Your task to perform on an android device: turn off priority inbox in the gmail app Image 0: 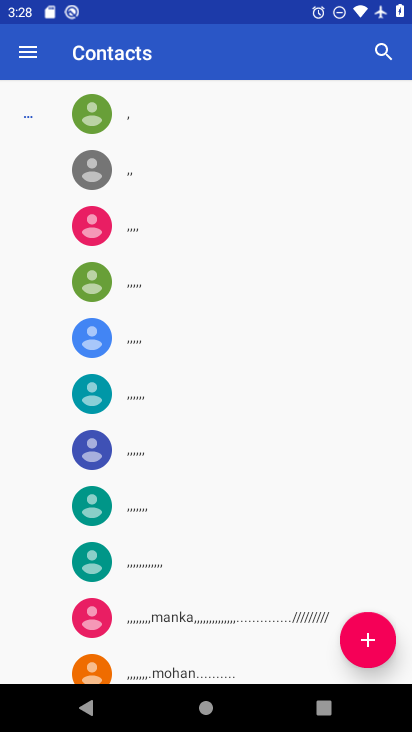
Step 0: press home button
Your task to perform on an android device: turn off priority inbox in the gmail app Image 1: 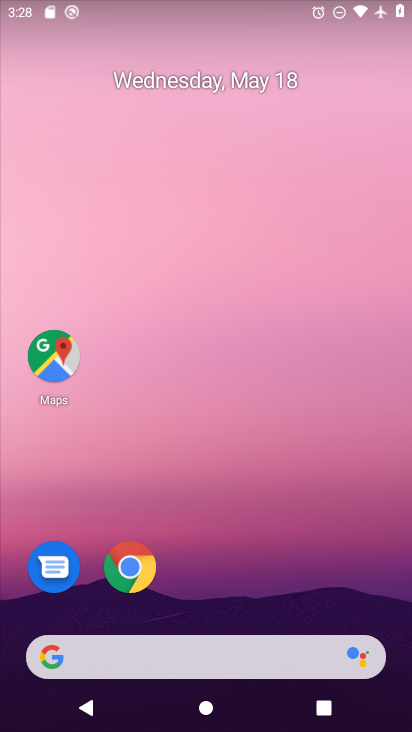
Step 1: drag from (200, 598) to (183, 233)
Your task to perform on an android device: turn off priority inbox in the gmail app Image 2: 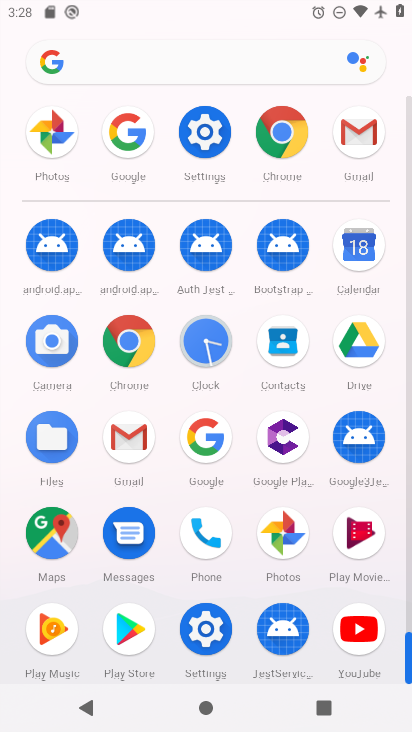
Step 2: click (360, 123)
Your task to perform on an android device: turn off priority inbox in the gmail app Image 3: 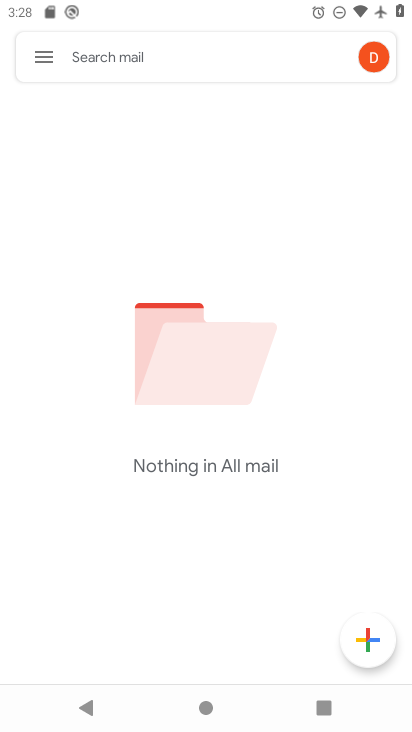
Step 3: click (31, 55)
Your task to perform on an android device: turn off priority inbox in the gmail app Image 4: 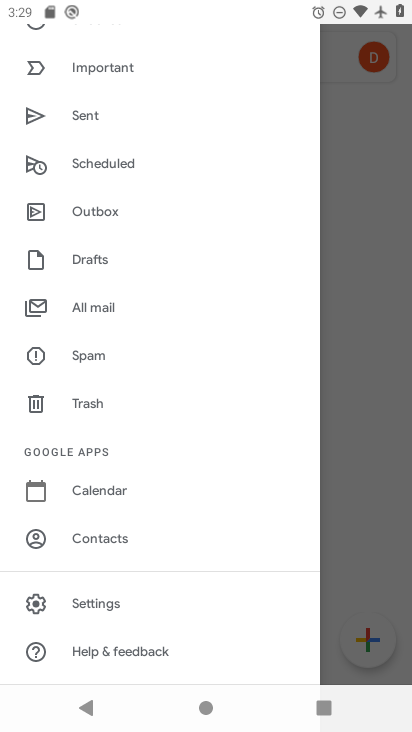
Step 4: click (129, 602)
Your task to perform on an android device: turn off priority inbox in the gmail app Image 5: 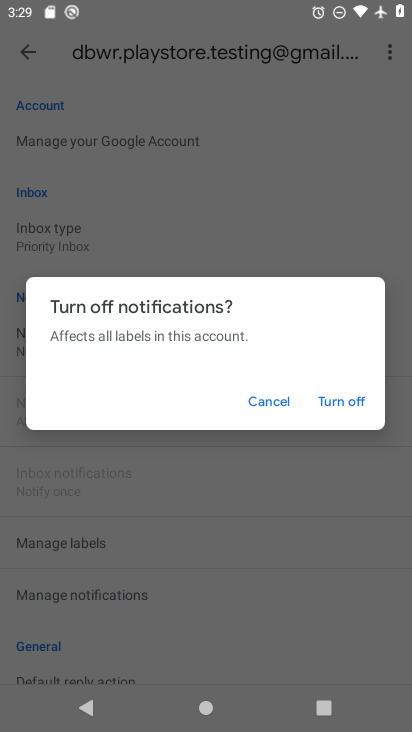
Step 5: click (350, 406)
Your task to perform on an android device: turn off priority inbox in the gmail app Image 6: 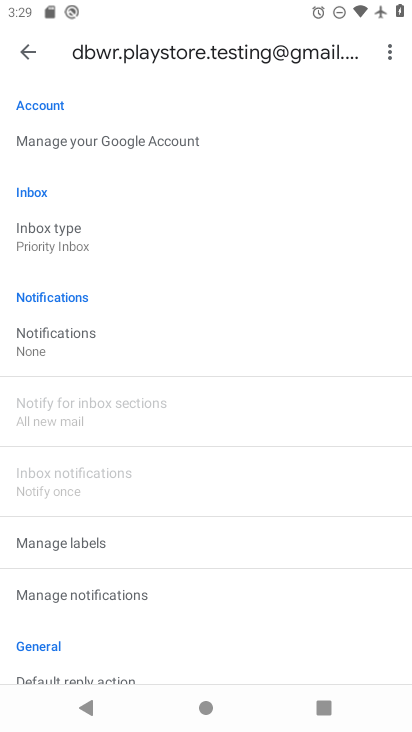
Step 6: click (64, 226)
Your task to perform on an android device: turn off priority inbox in the gmail app Image 7: 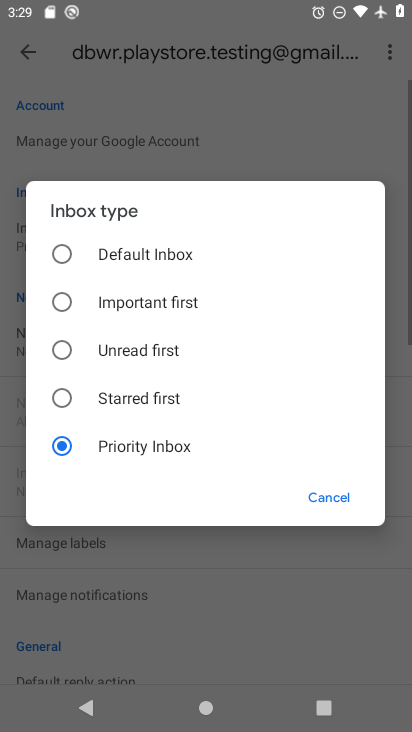
Step 7: click (124, 254)
Your task to perform on an android device: turn off priority inbox in the gmail app Image 8: 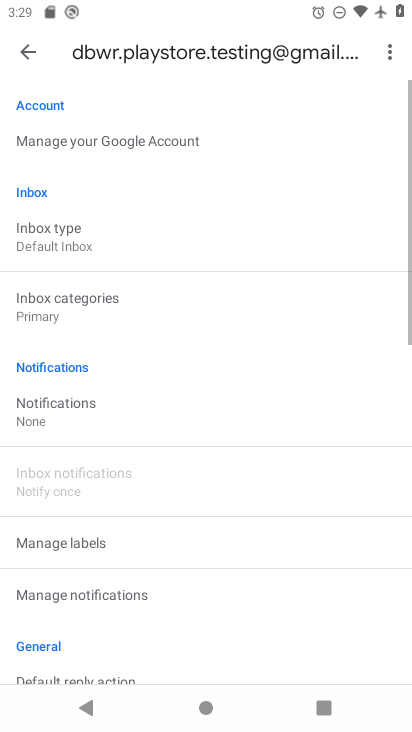
Step 8: task complete